Your task to perform on an android device: turn notification dots on Image 0: 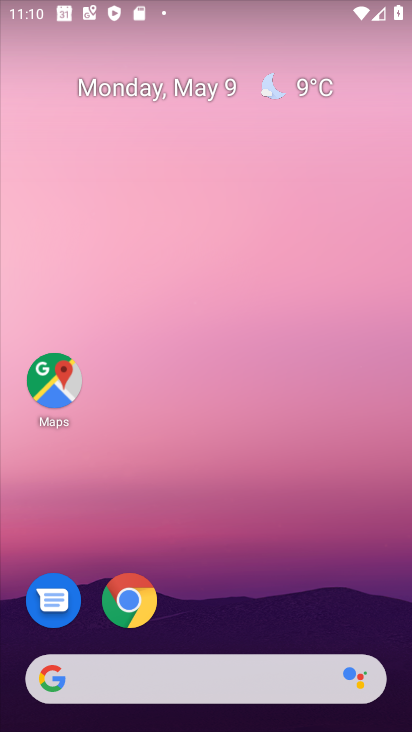
Step 0: drag from (270, 638) to (319, 190)
Your task to perform on an android device: turn notification dots on Image 1: 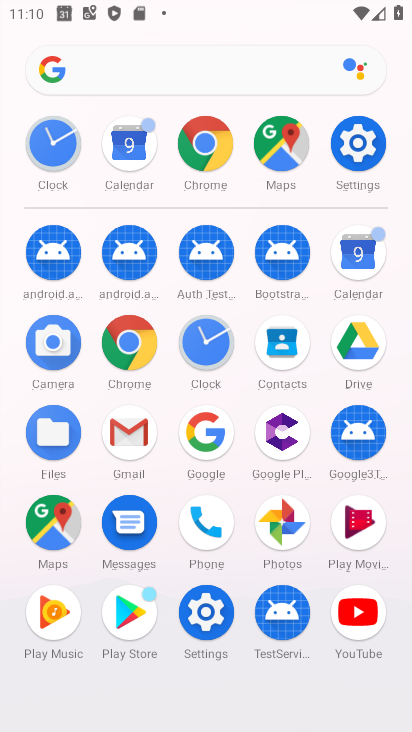
Step 1: click (349, 139)
Your task to perform on an android device: turn notification dots on Image 2: 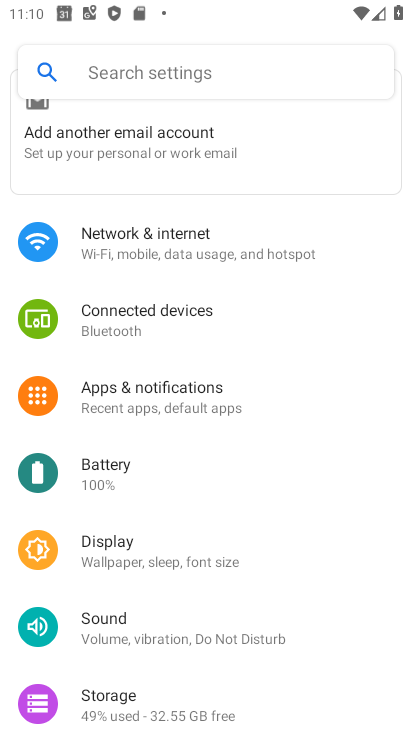
Step 2: click (191, 392)
Your task to perform on an android device: turn notification dots on Image 3: 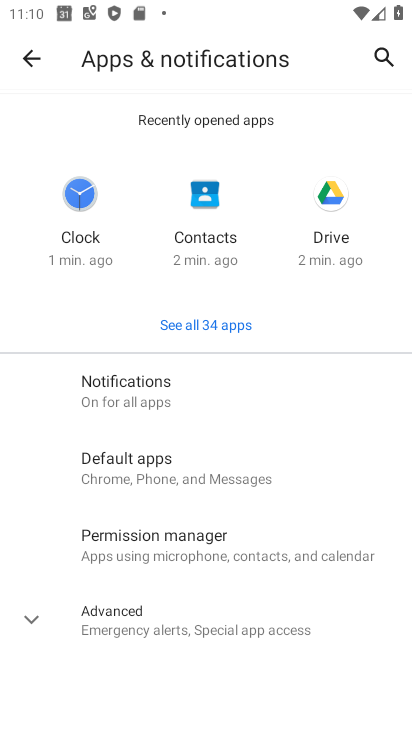
Step 3: click (148, 392)
Your task to perform on an android device: turn notification dots on Image 4: 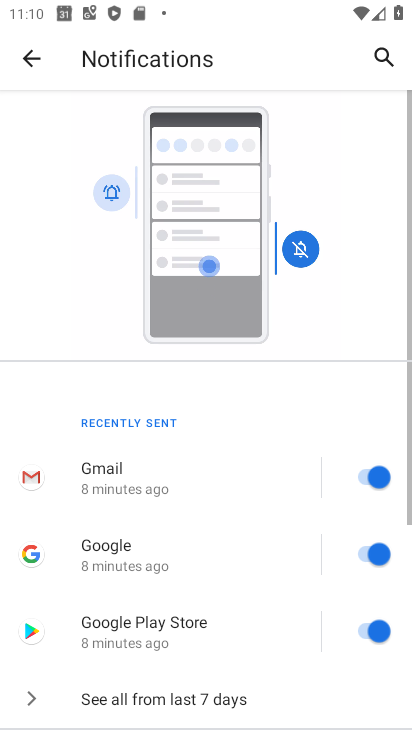
Step 4: drag from (281, 655) to (261, 279)
Your task to perform on an android device: turn notification dots on Image 5: 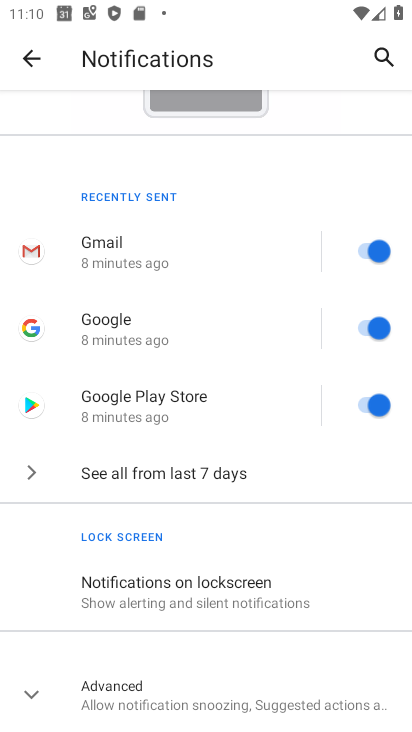
Step 5: click (255, 703)
Your task to perform on an android device: turn notification dots on Image 6: 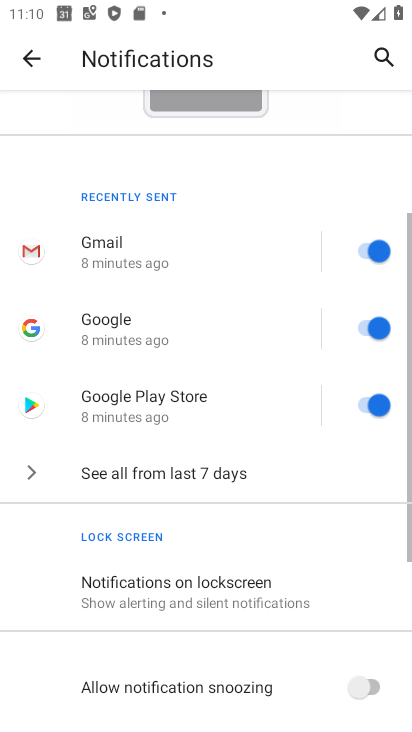
Step 6: task complete